Your task to perform on an android device: Open settings on Google Maps Image 0: 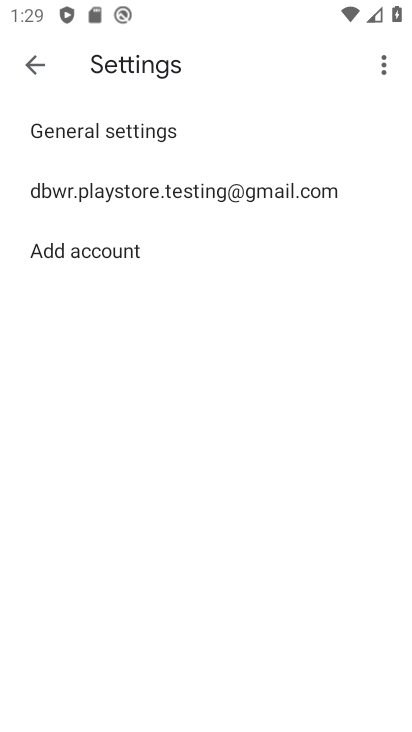
Step 0: press back button
Your task to perform on an android device: Open settings on Google Maps Image 1: 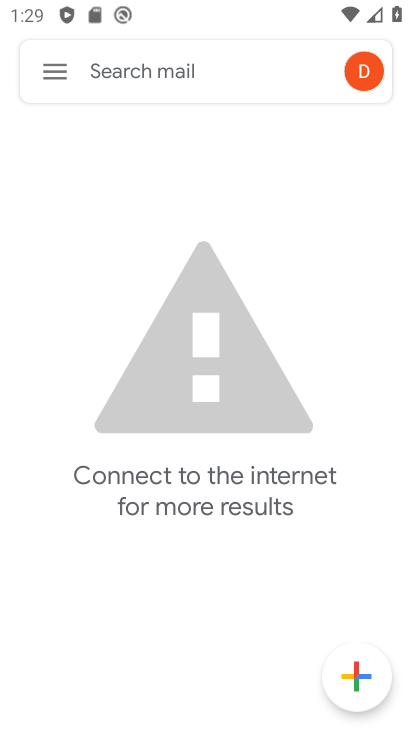
Step 1: press home button
Your task to perform on an android device: Open settings on Google Maps Image 2: 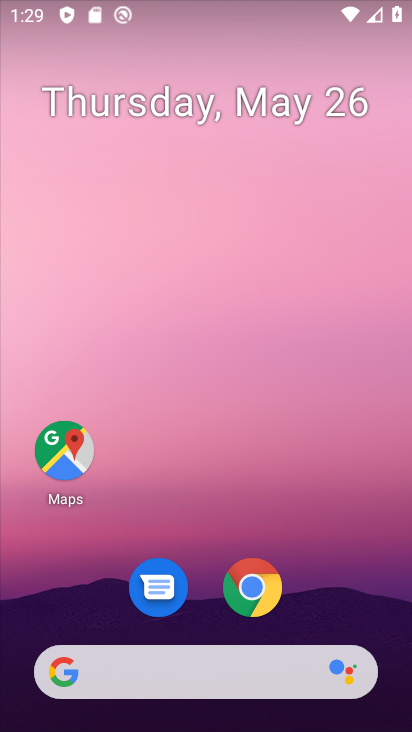
Step 2: drag from (356, 555) to (251, 45)
Your task to perform on an android device: Open settings on Google Maps Image 3: 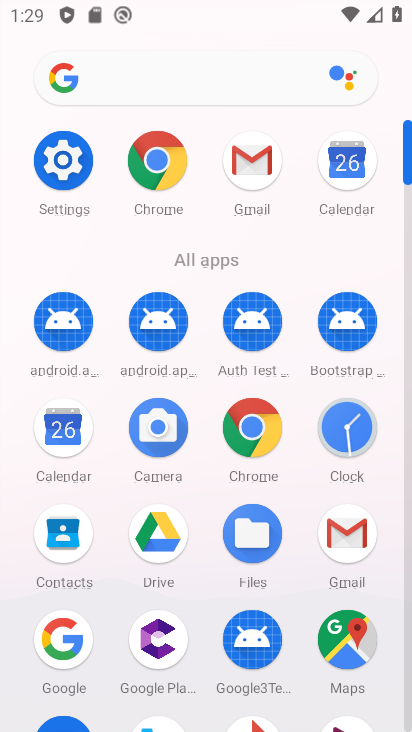
Step 3: drag from (0, 534) to (3, 221)
Your task to perform on an android device: Open settings on Google Maps Image 4: 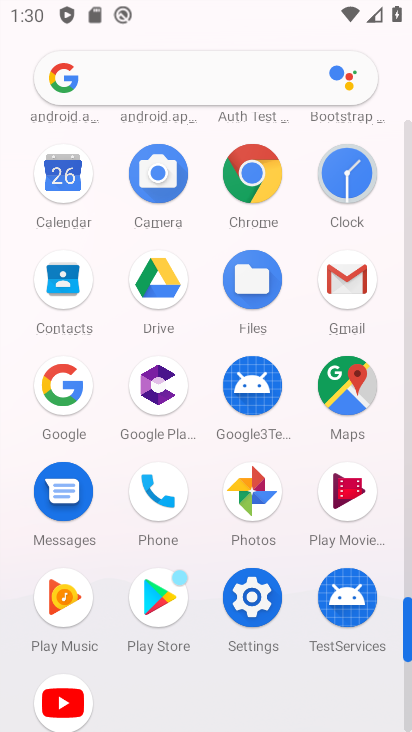
Step 4: click (343, 378)
Your task to perform on an android device: Open settings on Google Maps Image 5: 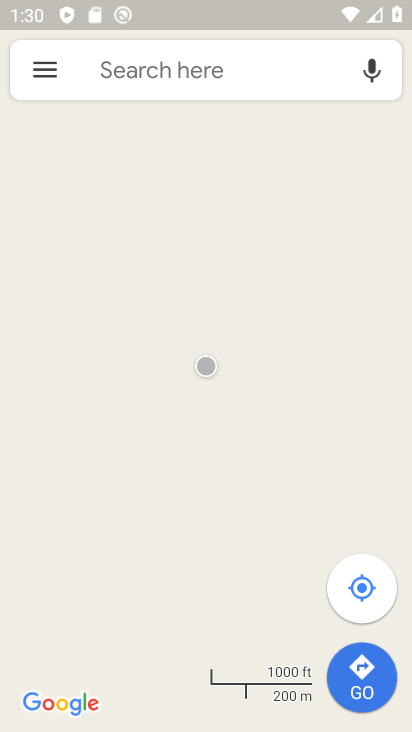
Step 5: click (43, 66)
Your task to perform on an android device: Open settings on Google Maps Image 6: 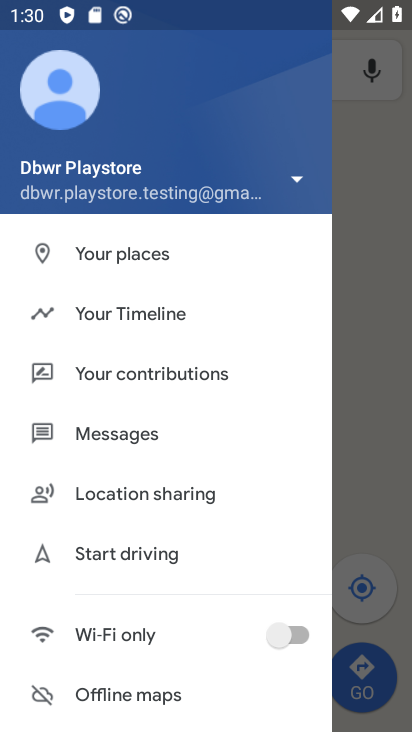
Step 6: drag from (166, 577) to (190, 176)
Your task to perform on an android device: Open settings on Google Maps Image 7: 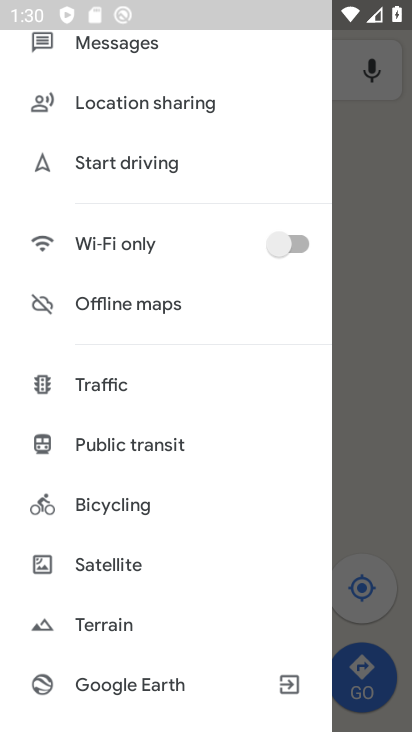
Step 7: drag from (177, 625) to (175, 186)
Your task to perform on an android device: Open settings on Google Maps Image 8: 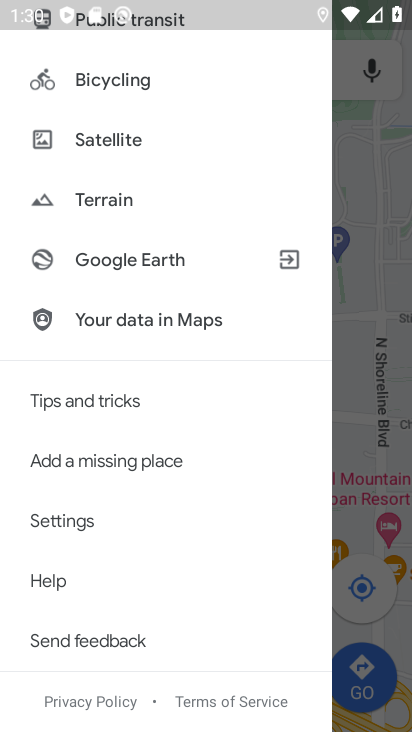
Step 8: click (78, 521)
Your task to perform on an android device: Open settings on Google Maps Image 9: 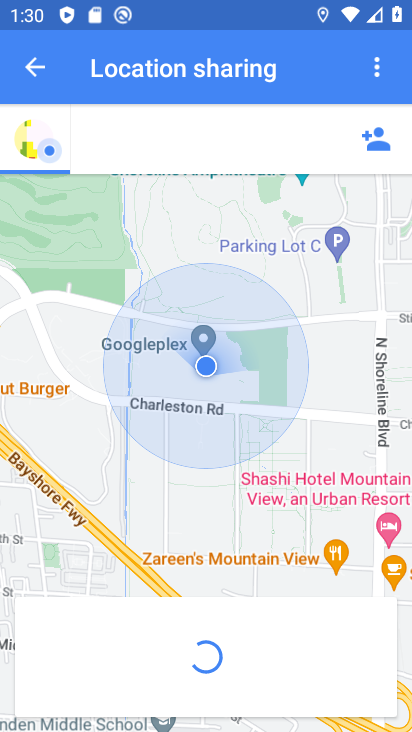
Step 9: click (46, 65)
Your task to perform on an android device: Open settings on Google Maps Image 10: 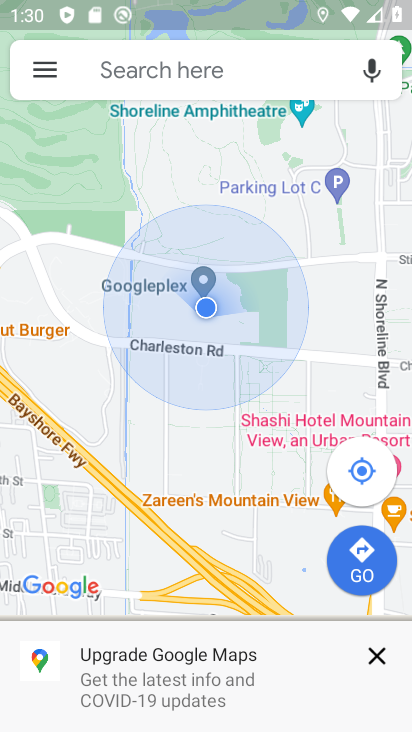
Step 10: click (46, 65)
Your task to perform on an android device: Open settings on Google Maps Image 11: 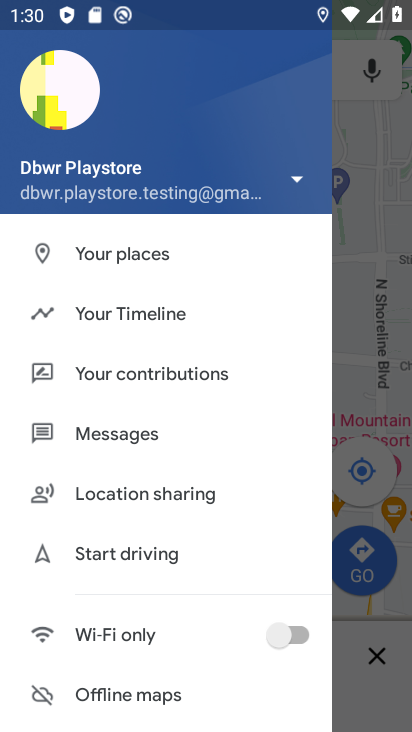
Step 11: drag from (132, 642) to (188, 198)
Your task to perform on an android device: Open settings on Google Maps Image 12: 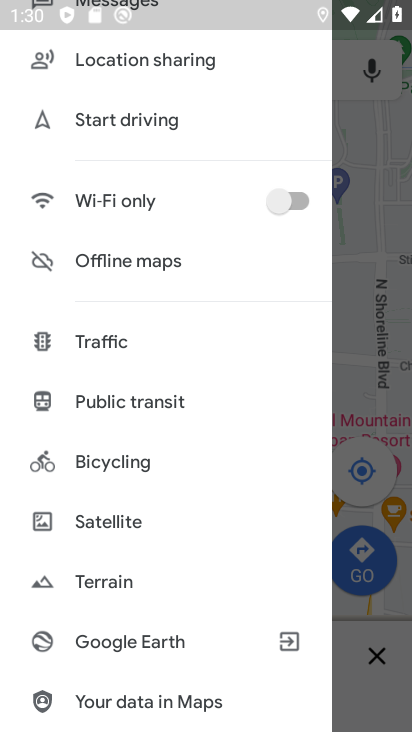
Step 12: drag from (135, 650) to (181, 184)
Your task to perform on an android device: Open settings on Google Maps Image 13: 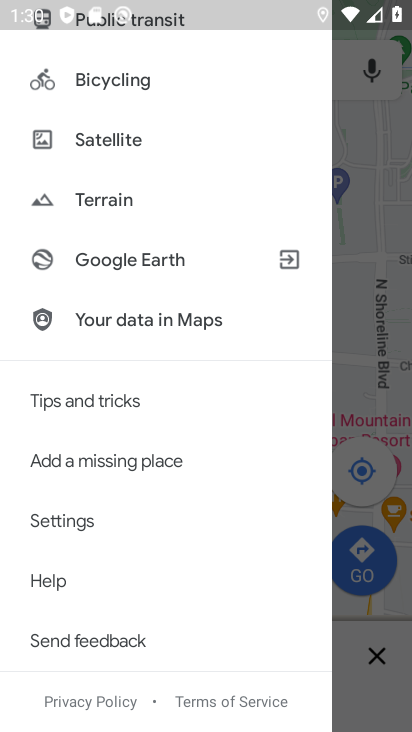
Step 13: click (58, 520)
Your task to perform on an android device: Open settings on Google Maps Image 14: 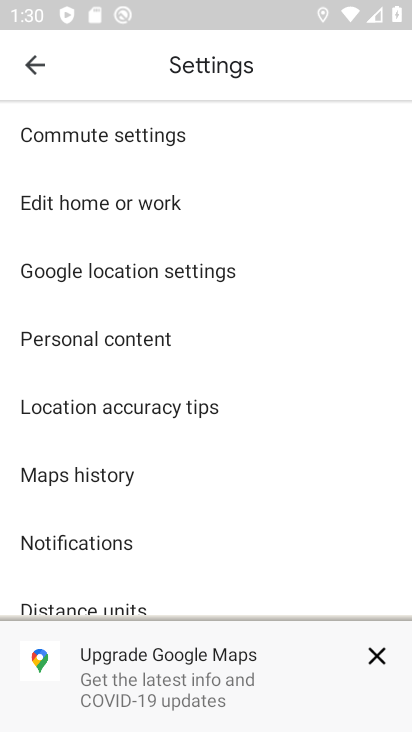
Step 14: drag from (248, 552) to (287, 233)
Your task to perform on an android device: Open settings on Google Maps Image 15: 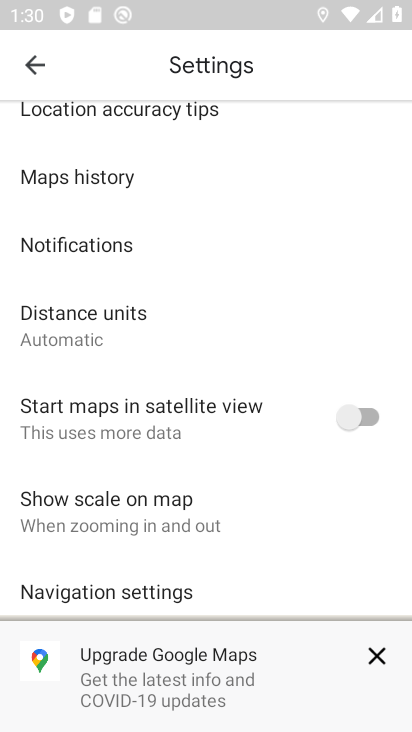
Step 15: click (28, 62)
Your task to perform on an android device: Open settings on Google Maps Image 16: 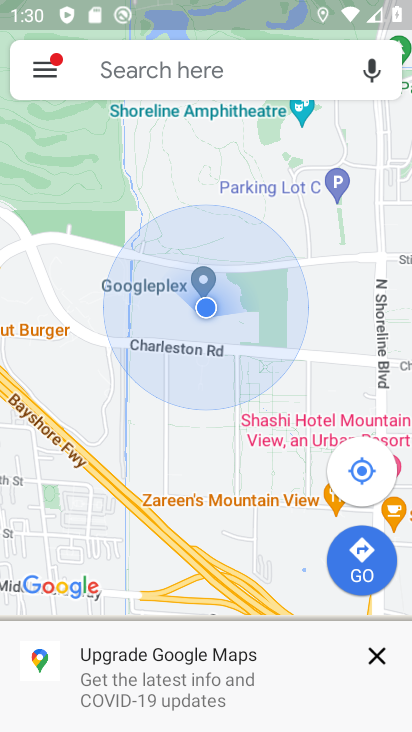
Step 16: click (34, 67)
Your task to perform on an android device: Open settings on Google Maps Image 17: 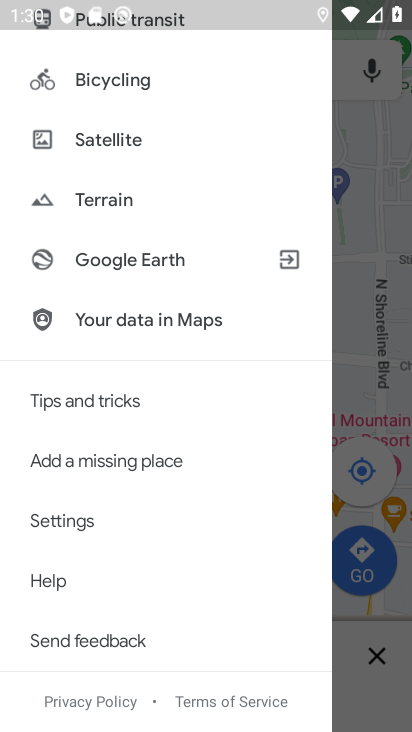
Step 17: click (46, 521)
Your task to perform on an android device: Open settings on Google Maps Image 18: 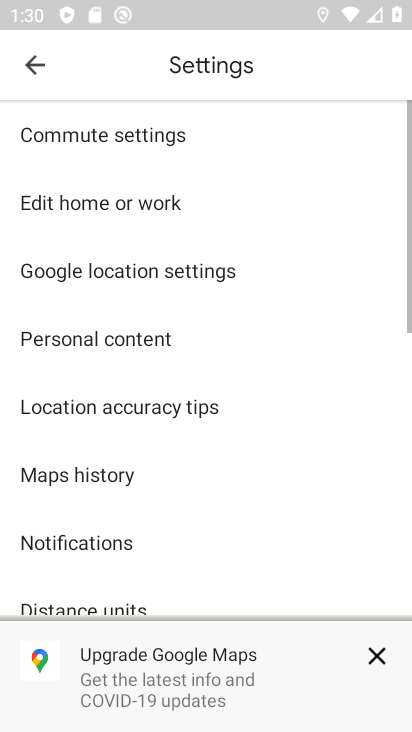
Step 18: task complete